Your task to perform on an android device: install app "Spotify: Music and Podcasts" Image 0: 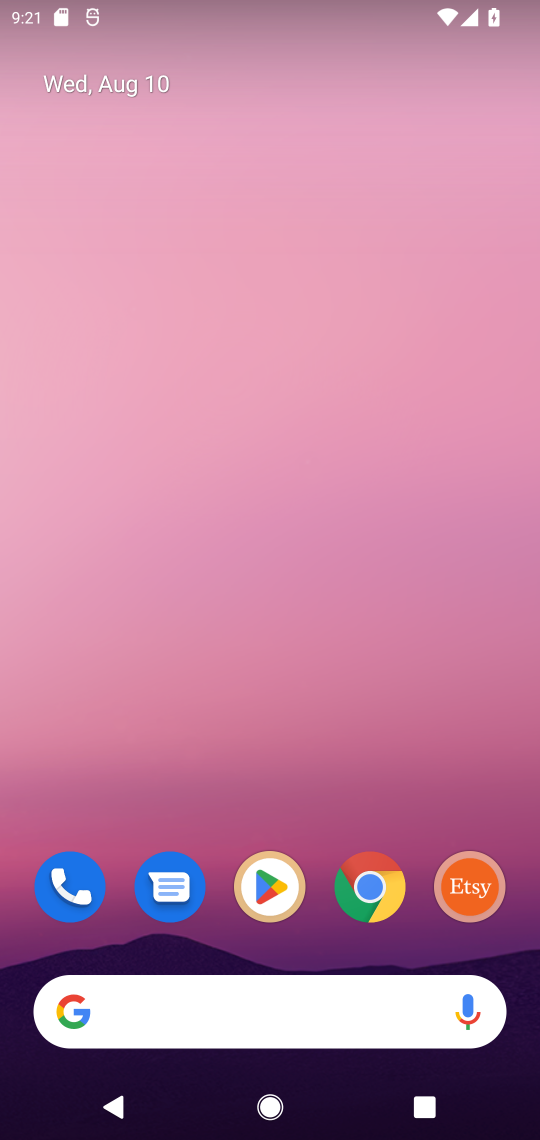
Step 0: click (266, 884)
Your task to perform on an android device: install app "Spotify: Music and Podcasts" Image 1: 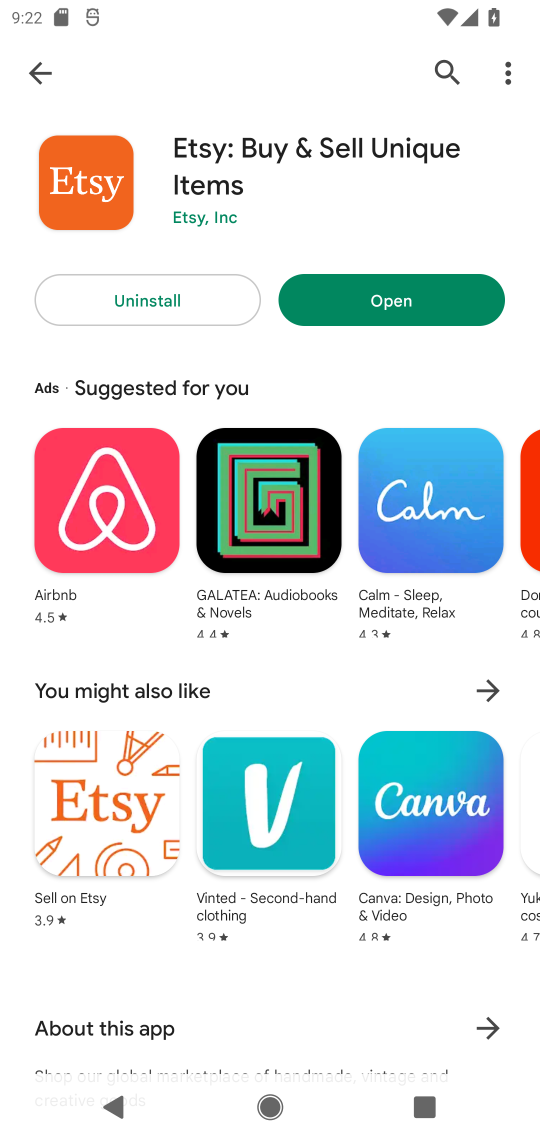
Step 1: click (456, 78)
Your task to perform on an android device: install app "Spotify: Music and Podcasts" Image 2: 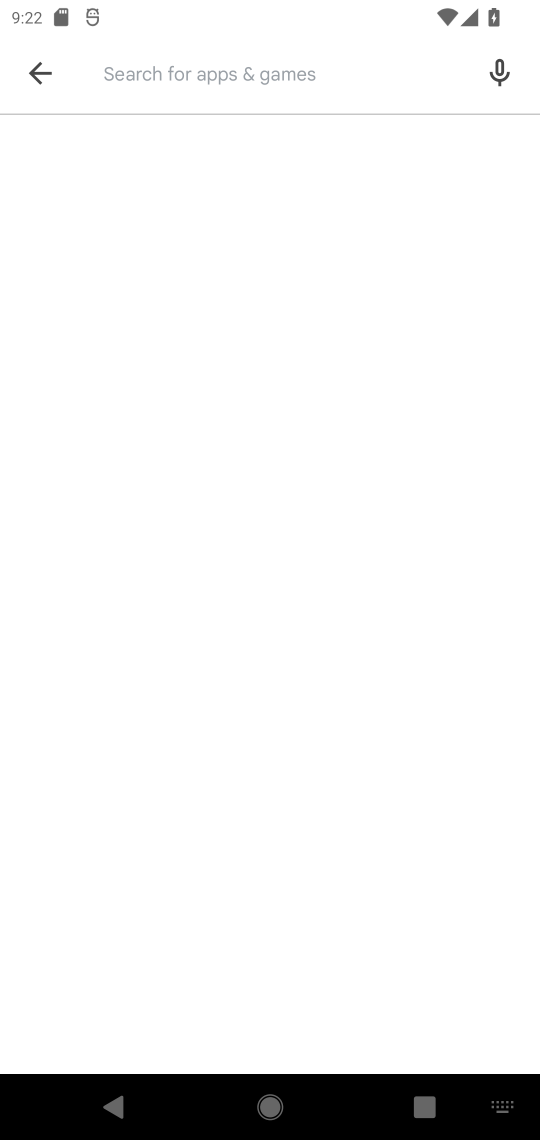
Step 2: type "Spotify: Music and Podcasts"
Your task to perform on an android device: install app "Spotify: Music and Podcasts" Image 3: 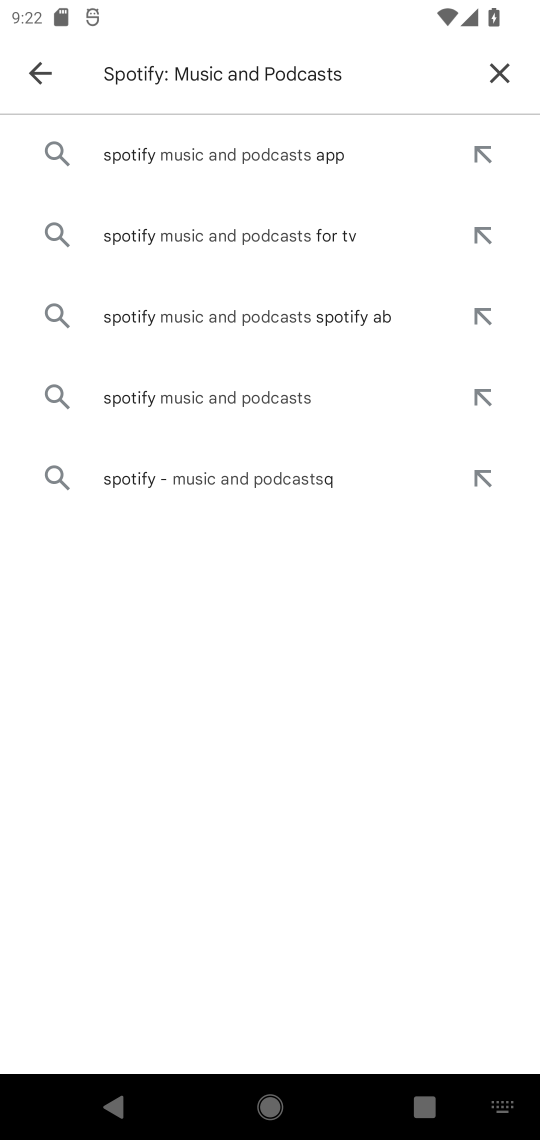
Step 3: click (263, 145)
Your task to perform on an android device: install app "Spotify: Music and Podcasts" Image 4: 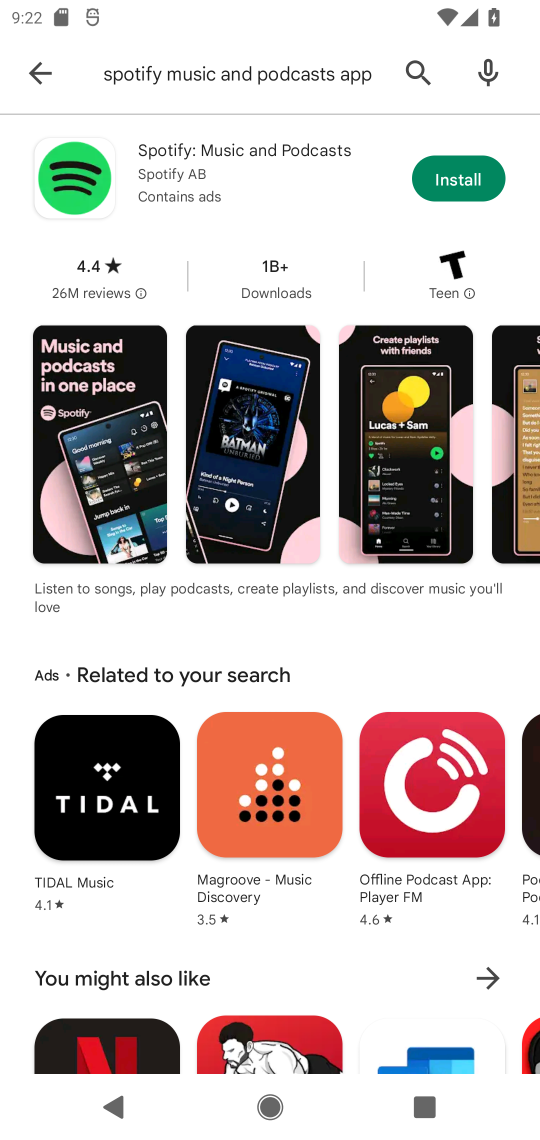
Step 4: click (458, 180)
Your task to perform on an android device: install app "Spotify: Music and Podcasts" Image 5: 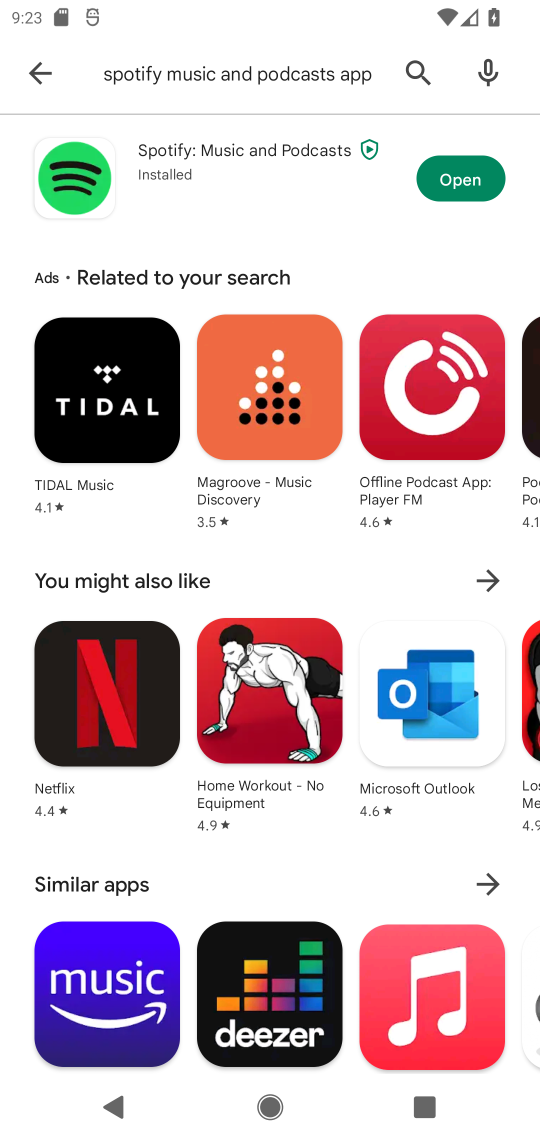
Step 5: task complete